Your task to perform on an android device: find snoozed emails in the gmail app Image 0: 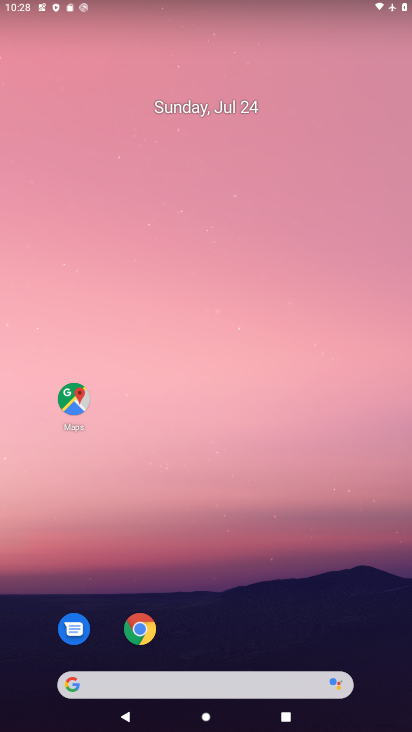
Step 0: drag from (321, 654) to (261, 45)
Your task to perform on an android device: find snoozed emails in the gmail app Image 1: 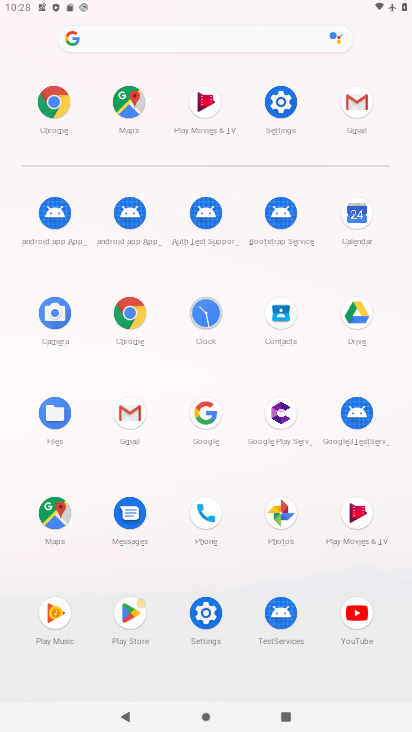
Step 1: click (358, 119)
Your task to perform on an android device: find snoozed emails in the gmail app Image 2: 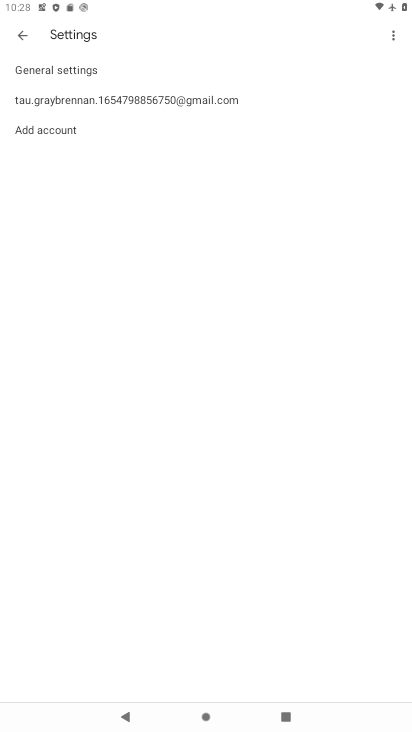
Step 2: task complete